Your task to perform on an android device: Check the weather Image 0: 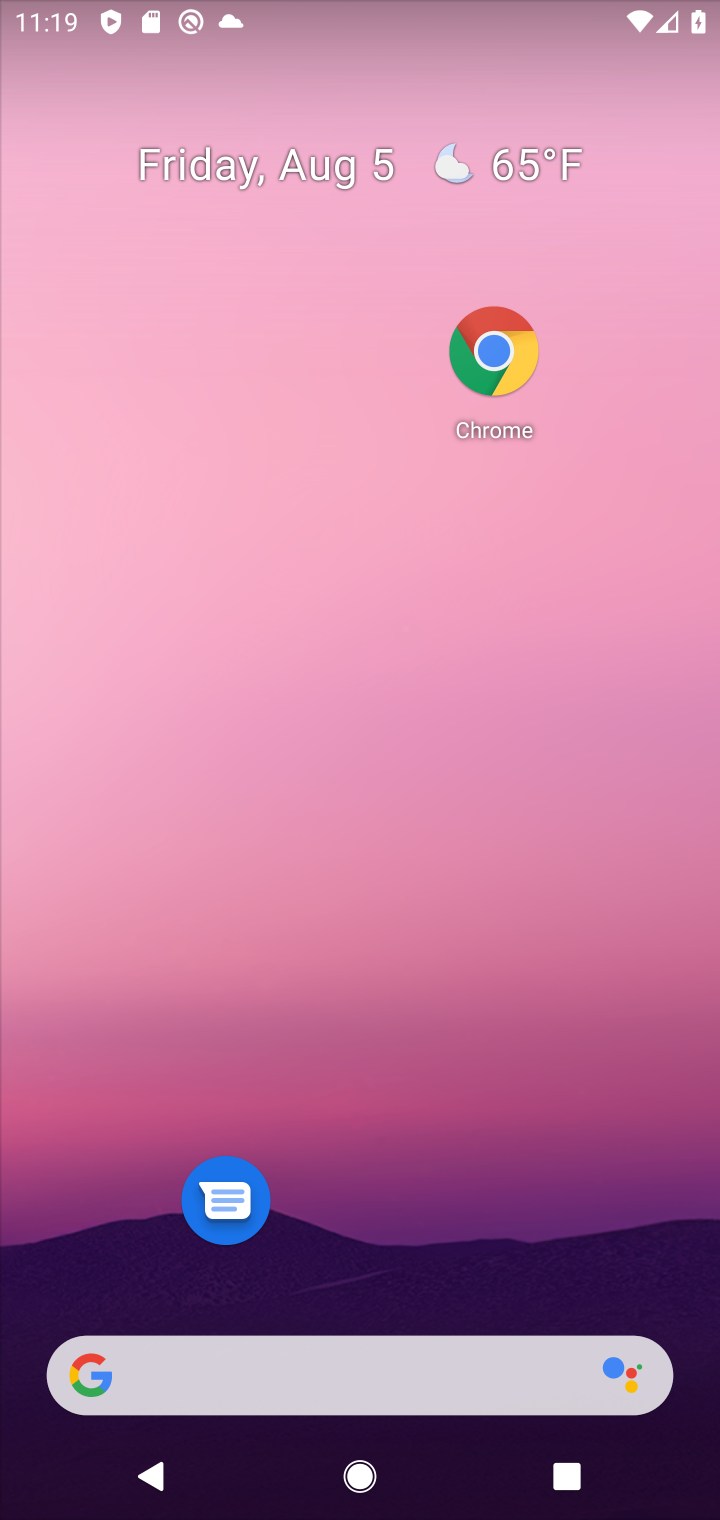
Step 0: drag from (362, 1303) to (342, 58)
Your task to perform on an android device: Check the weather Image 1: 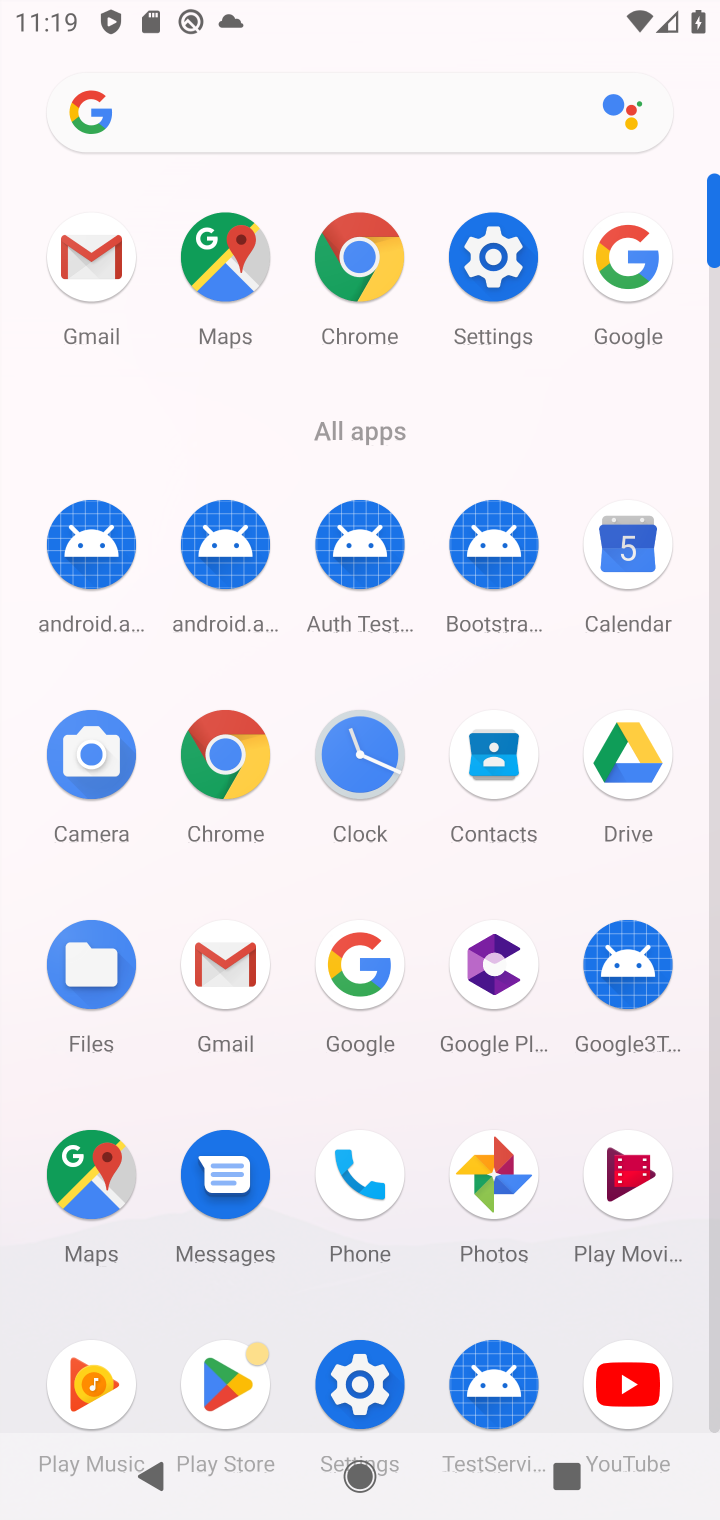
Step 1: click (373, 1003)
Your task to perform on an android device: Check the weather Image 2: 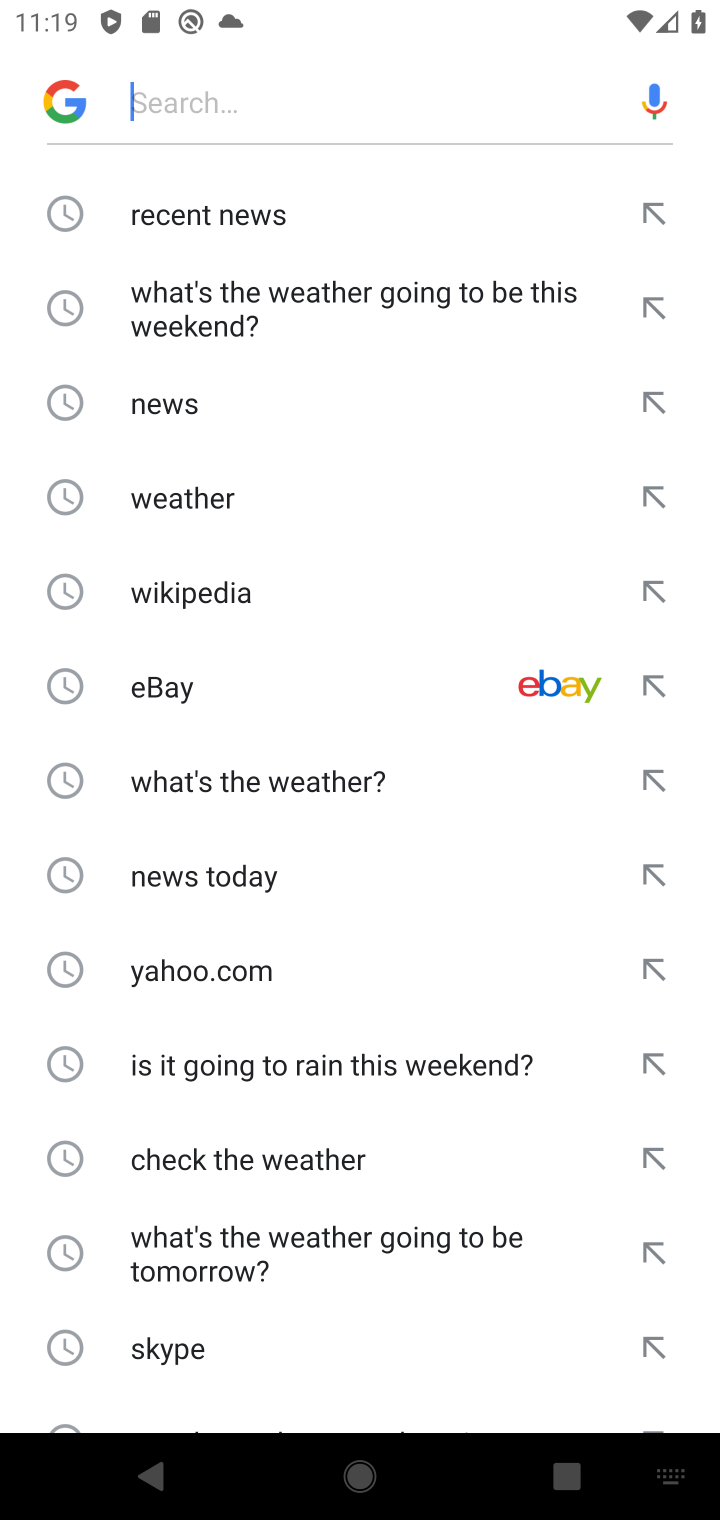
Step 2: click (241, 511)
Your task to perform on an android device: Check the weather Image 3: 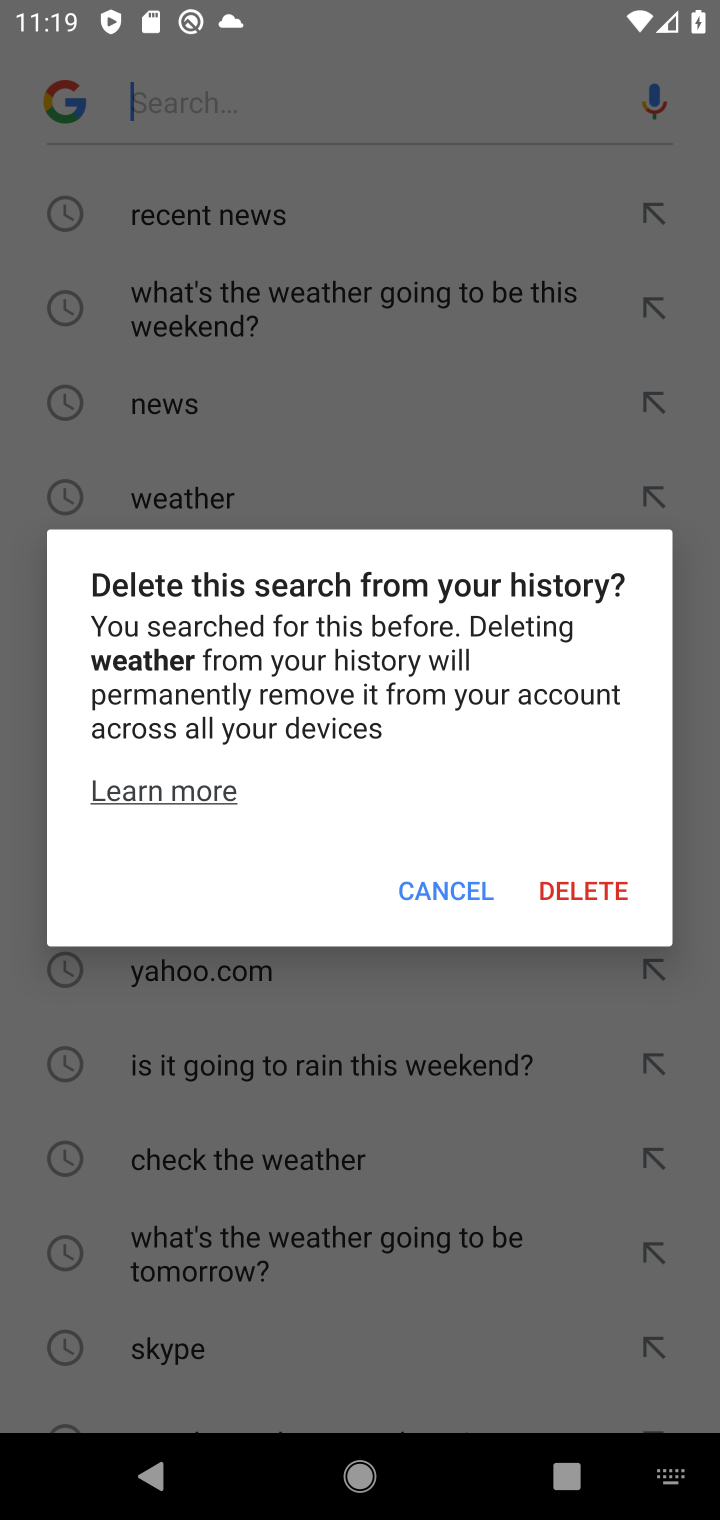
Step 3: click (250, 484)
Your task to perform on an android device: Check the weather Image 4: 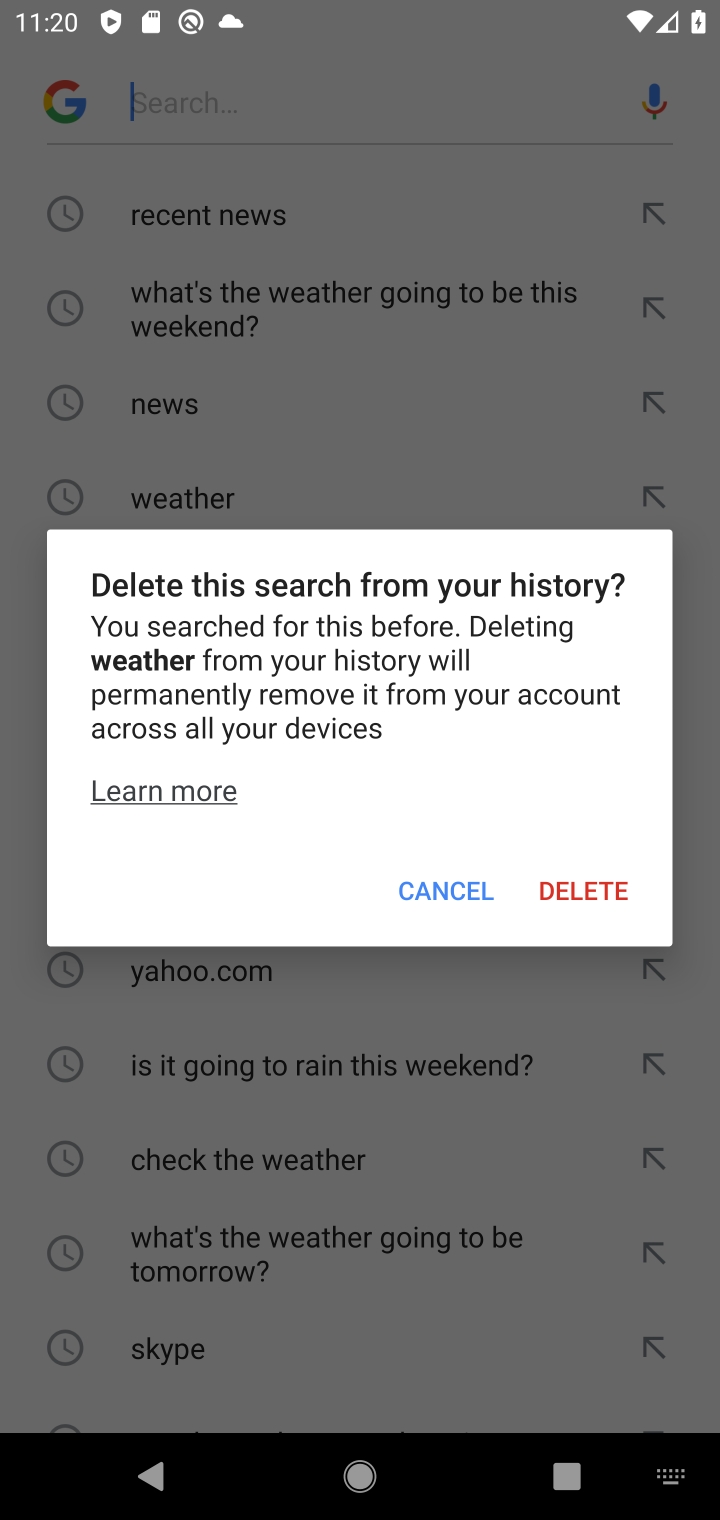
Step 4: click (402, 1078)
Your task to perform on an android device: Check the weather Image 5: 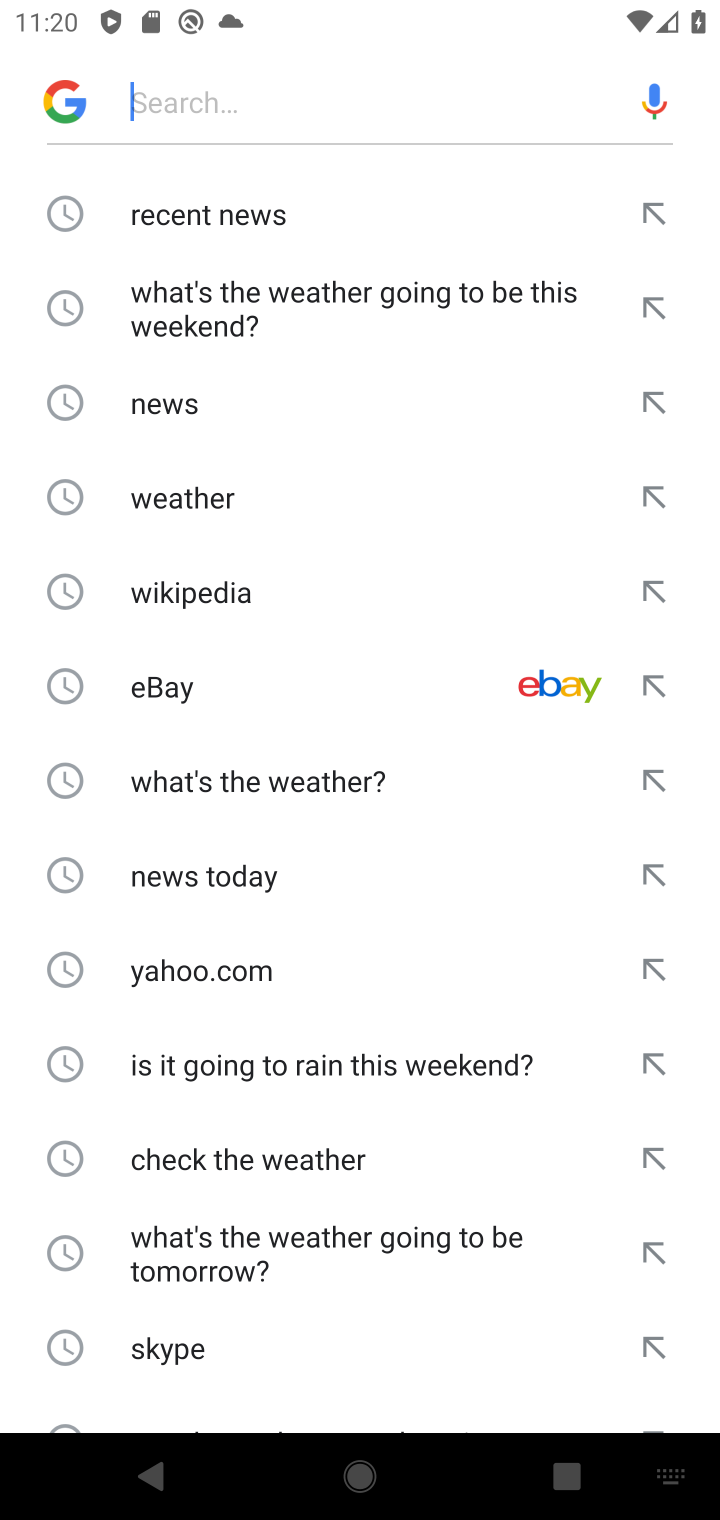
Step 5: click (151, 490)
Your task to perform on an android device: Check the weather Image 6: 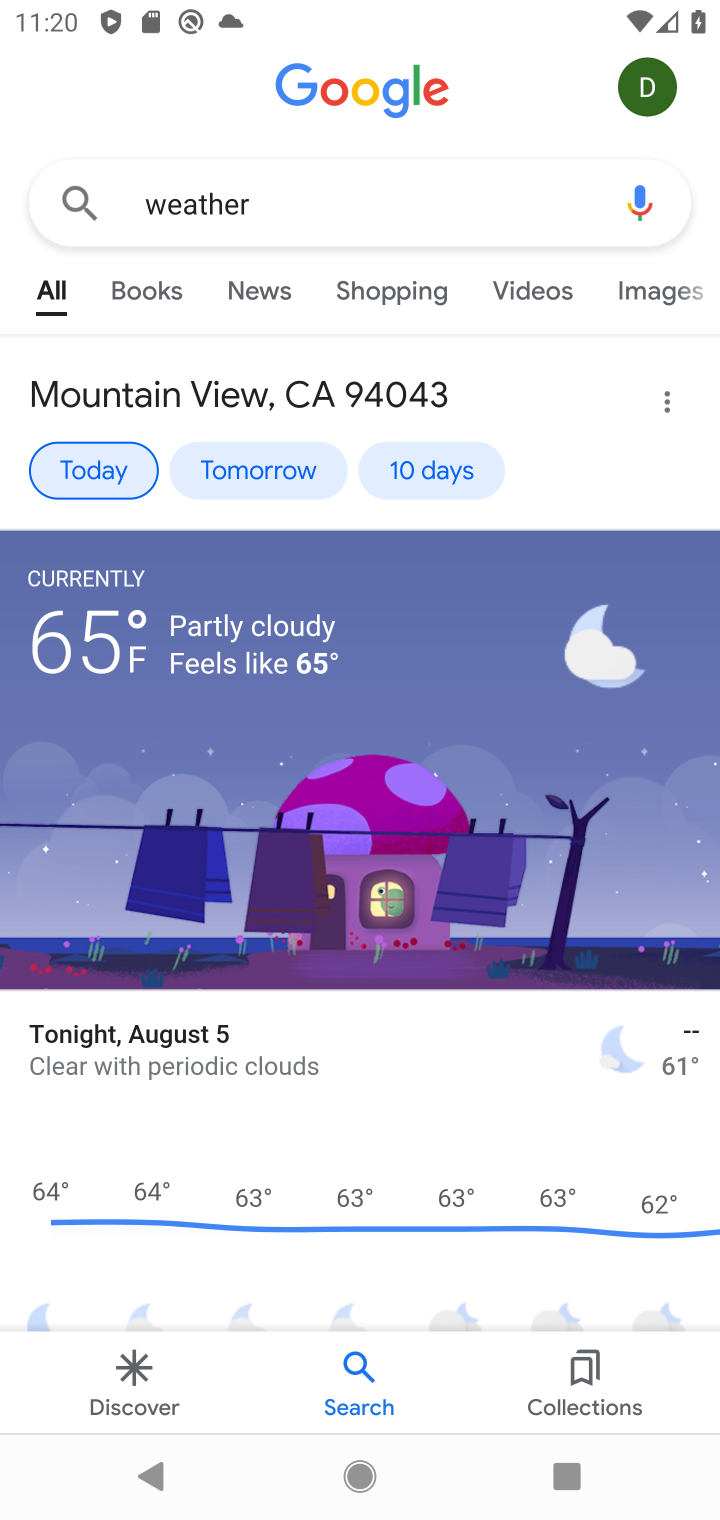
Step 6: task complete